Your task to perform on an android device: Is it going to rain this weekend? Image 0: 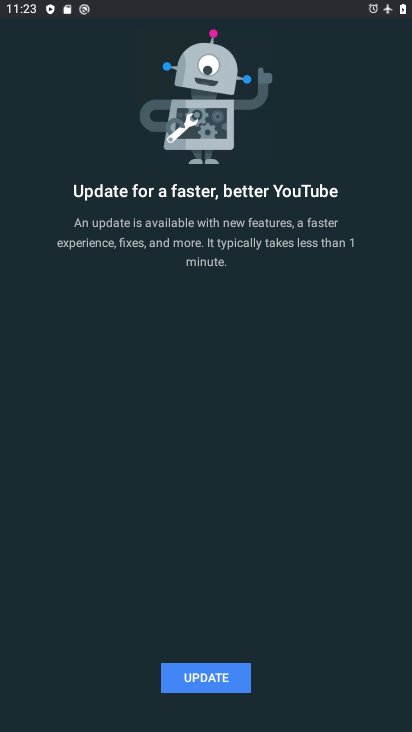
Step 0: press home button
Your task to perform on an android device: Is it going to rain this weekend? Image 1: 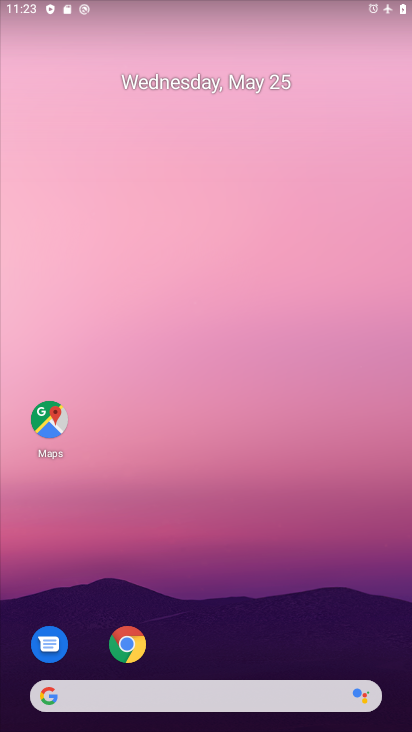
Step 1: drag from (247, 644) to (208, 237)
Your task to perform on an android device: Is it going to rain this weekend? Image 2: 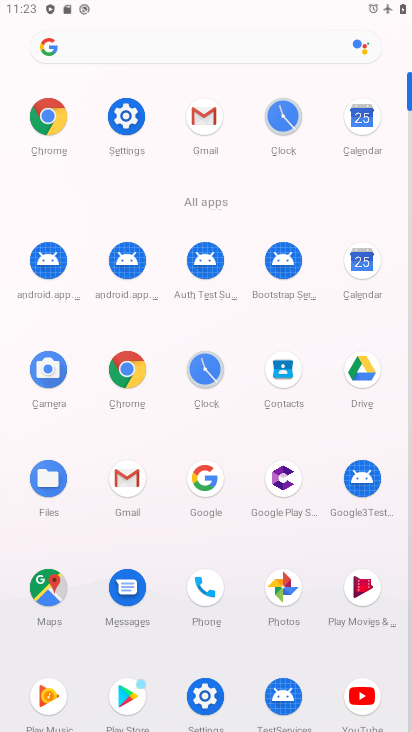
Step 2: click (201, 479)
Your task to perform on an android device: Is it going to rain this weekend? Image 3: 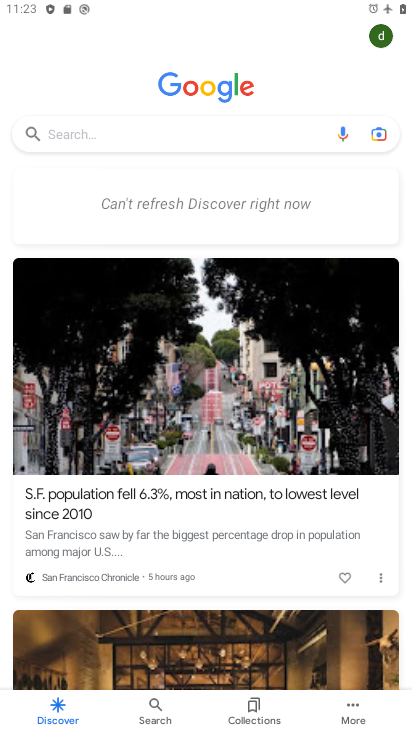
Step 3: click (213, 119)
Your task to perform on an android device: Is it going to rain this weekend? Image 4: 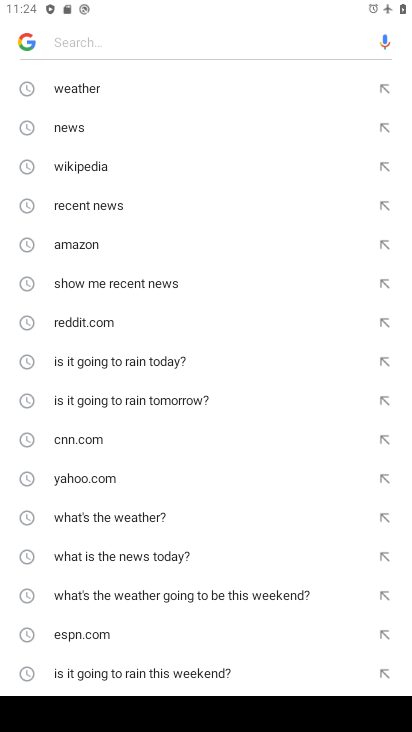
Step 4: type "rain this weekend"
Your task to perform on an android device: Is it going to rain this weekend? Image 5: 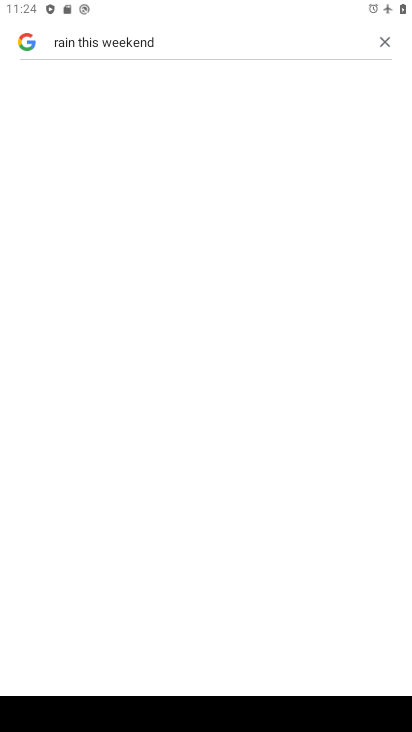
Step 5: task complete